Your task to perform on an android device: visit the assistant section in the google photos Image 0: 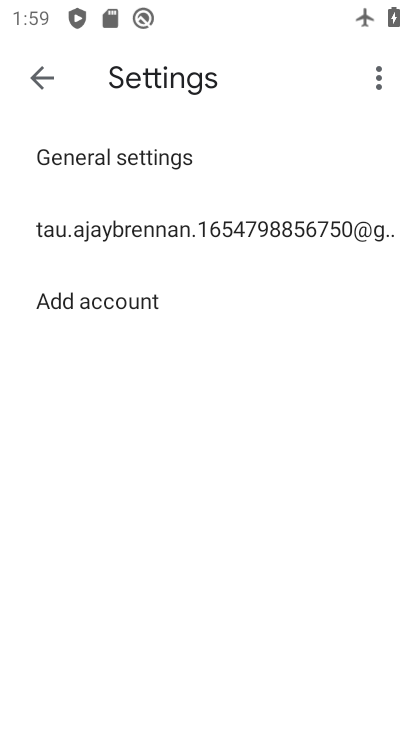
Step 0: press home button
Your task to perform on an android device: visit the assistant section in the google photos Image 1: 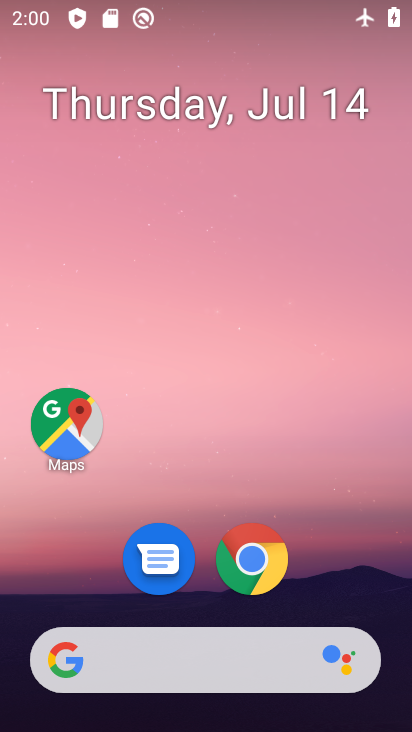
Step 1: drag from (197, 608) to (289, 59)
Your task to perform on an android device: visit the assistant section in the google photos Image 2: 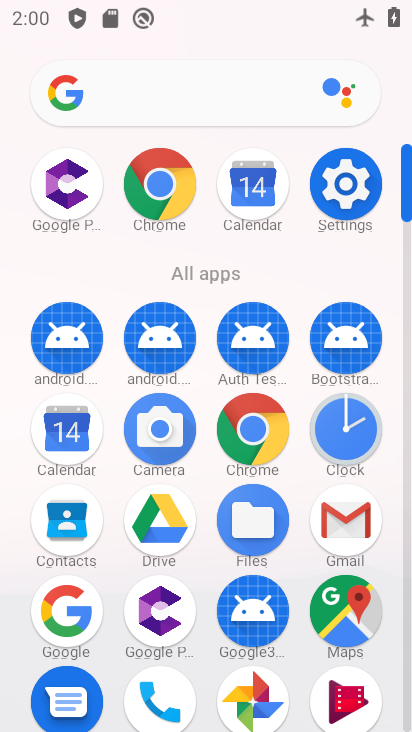
Step 2: drag from (225, 530) to (294, 159)
Your task to perform on an android device: visit the assistant section in the google photos Image 3: 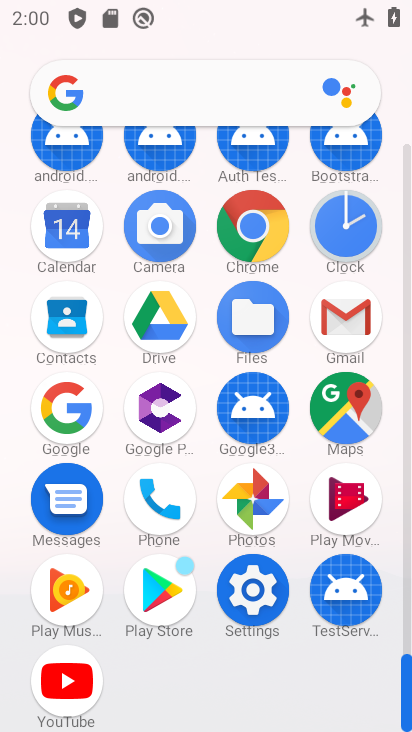
Step 3: click (277, 505)
Your task to perform on an android device: visit the assistant section in the google photos Image 4: 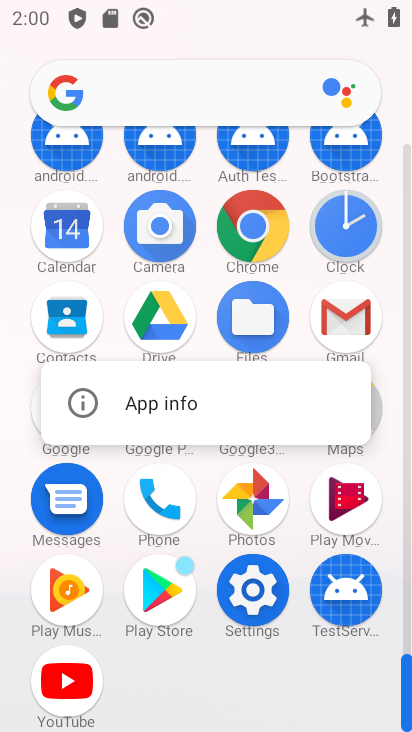
Step 4: click (265, 515)
Your task to perform on an android device: visit the assistant section in the google photos Image 5: 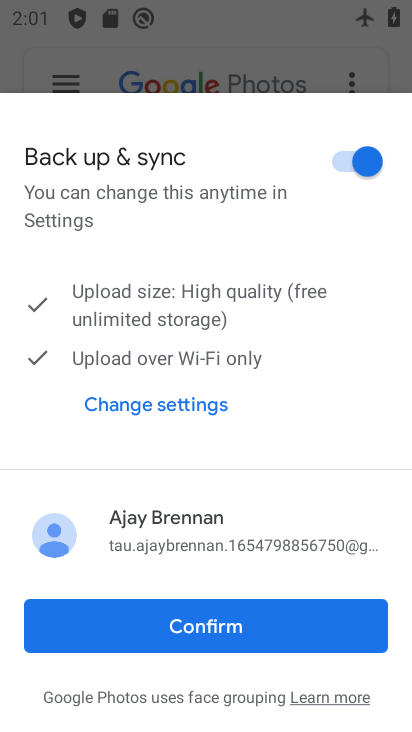
Step 5: click (251, 641)
Your task to perform on an android device: visit the assistant section in the google photos Image 6: 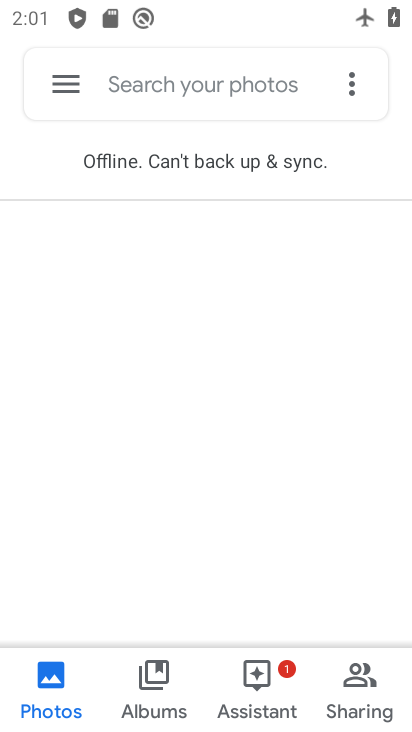
Step 6: click (260, 681)
Your task to perform on an android device: visit the assistant section in the google photos Image 7: 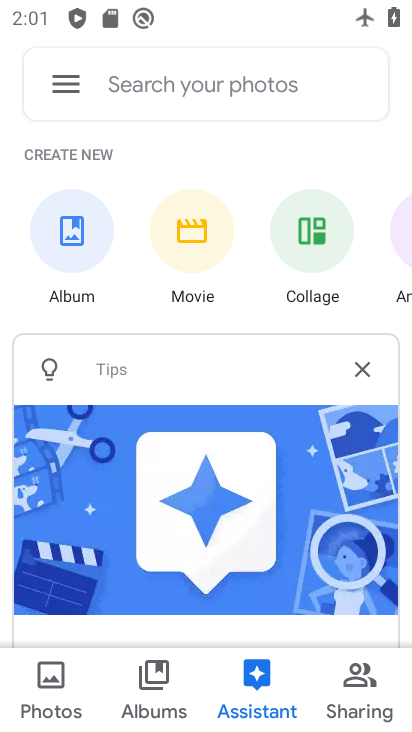
Step 7: task complete